Your task to perform on an android device: set the timer Image 0: 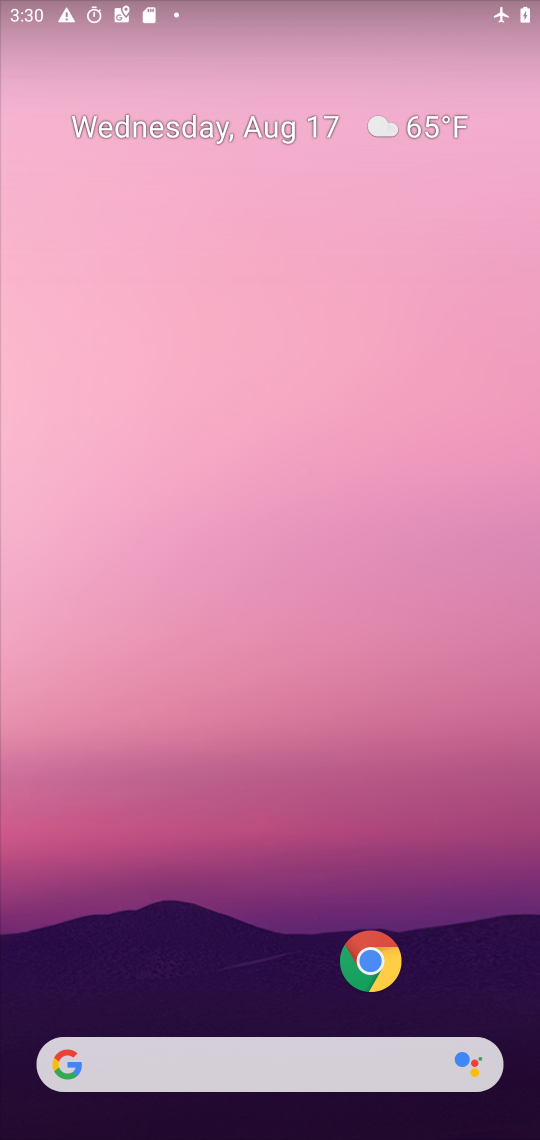
Step 0: drag from (286, 1066) to (459, 510)
Your task to perform on an android device: set the timer Image 1: 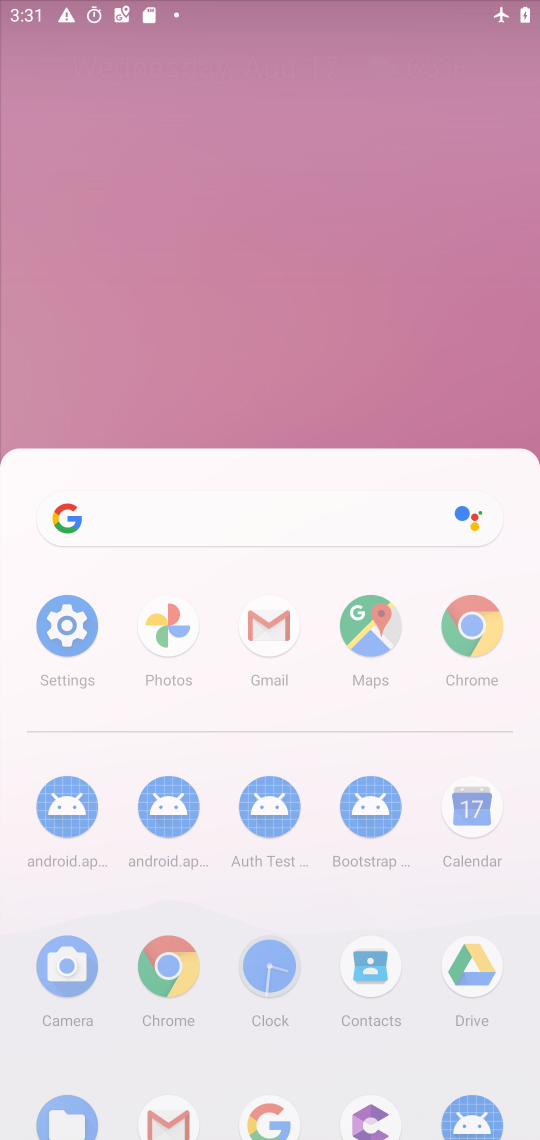
Step 1: drag from (174, 737) to (282, 243)
Your task to perform on an android device: set the timer Image 2: 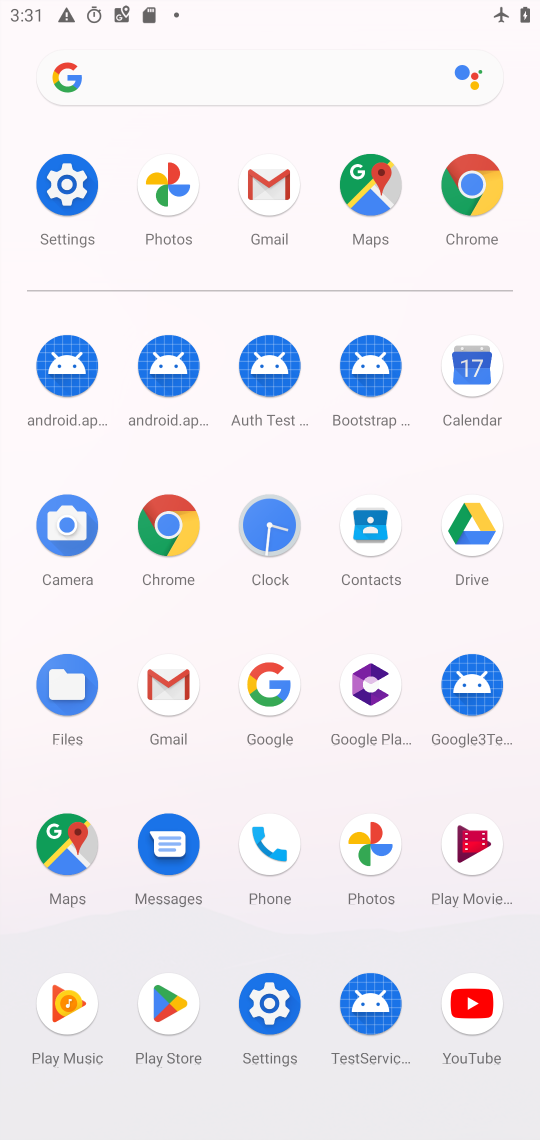
Step 2: drag from (345, 433) to (394, 271)
Your task to perform on an android device: set the timer Image 3: 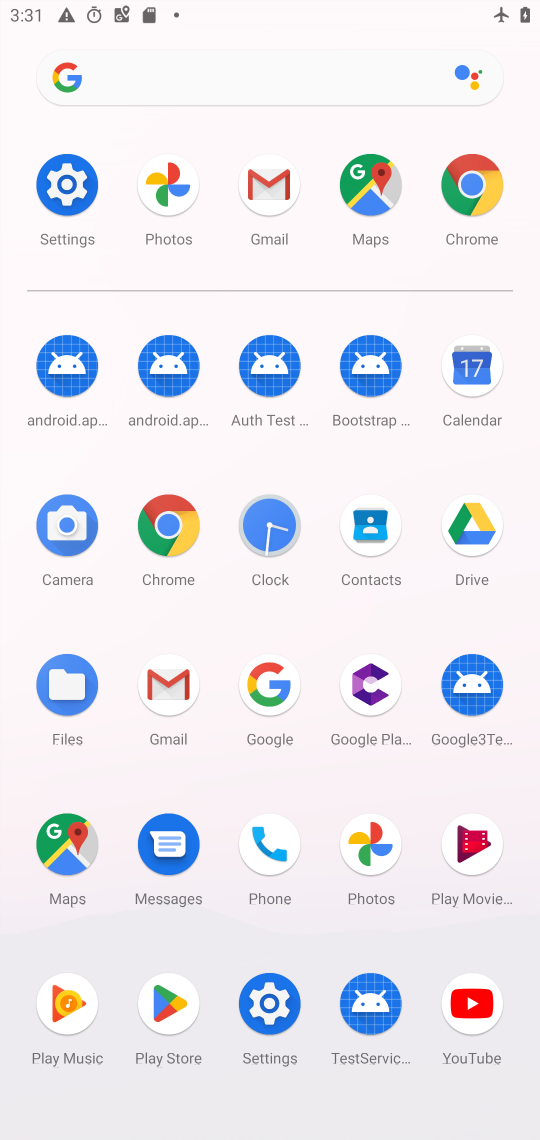
Step 3: click (282, 546)
Your task to perform on an android device: set the timer Image 4: 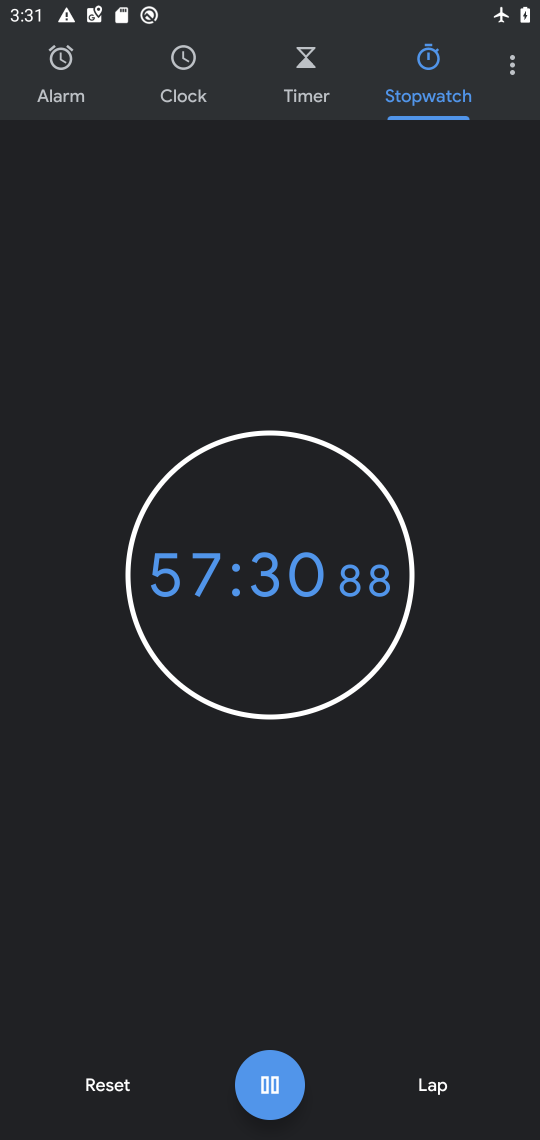
Step 4: click (303, 67)
Your task to perform on an android device: set the timer Image 5: 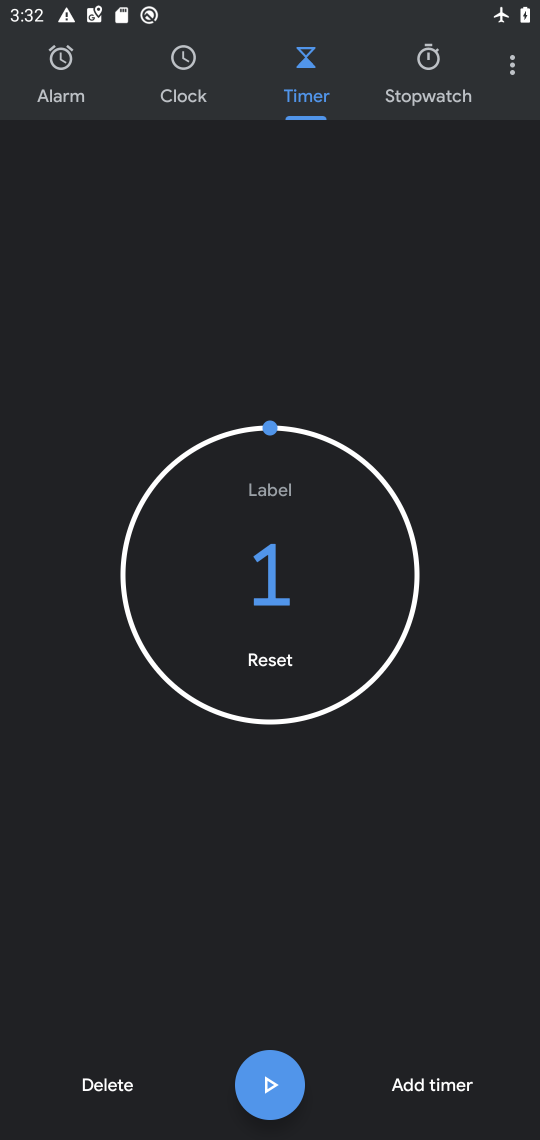
Step 5: task complete